Your task to perform on an android device: set the timer Image 0: 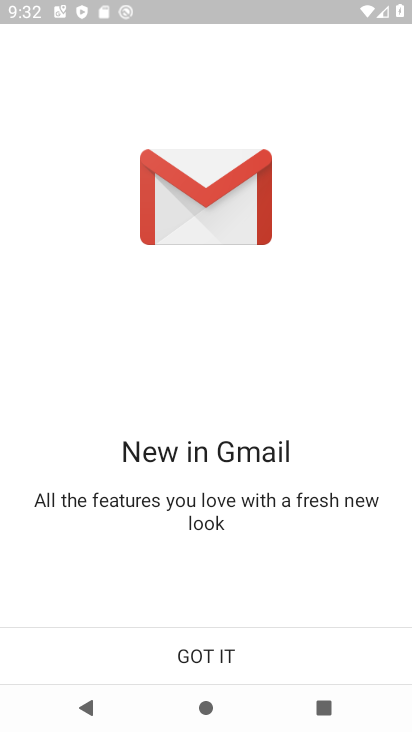
Step 0: press home button
Your task to perform on an android device: set the timer Image 1: 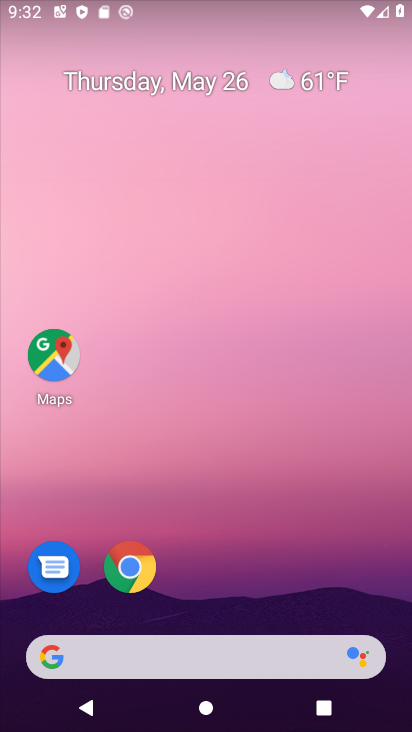
Step 1: drag from (381, 575) to (346, 111)
Your task to perform on an android device: set the timer Image 2: 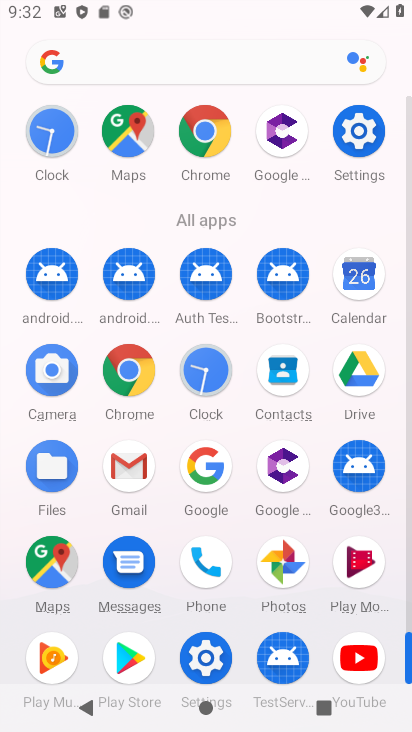
Step 2: click (210, 379)
Your task to perform on an android device: set the timer Image 3: 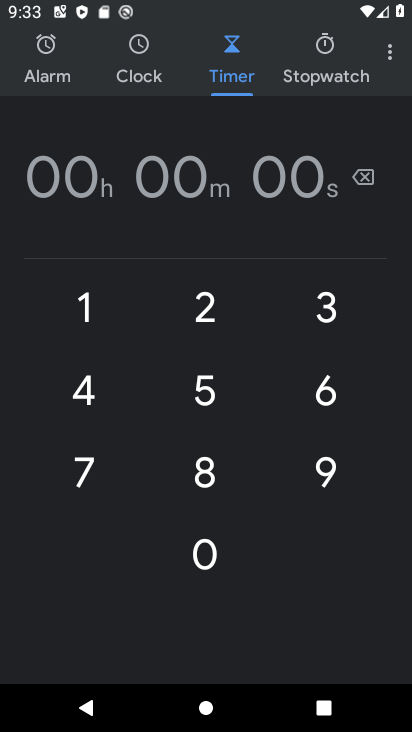
Step 3: click (223, 329)
Your task to perform on an android device: set the timer Image 4: 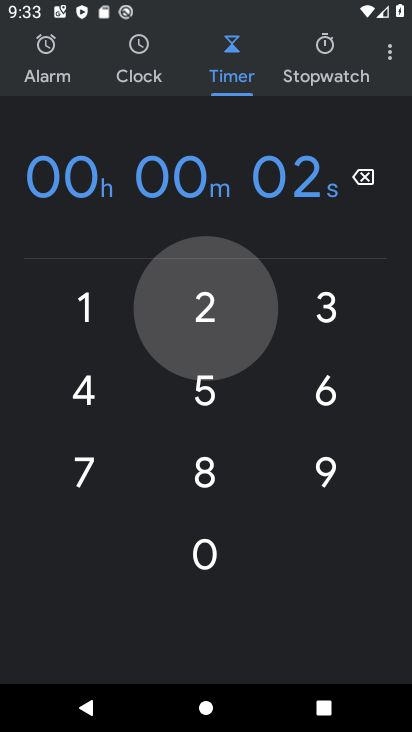
Step 4: click (220, 372)
Your task to perform on an android device: set the timer Image 5: 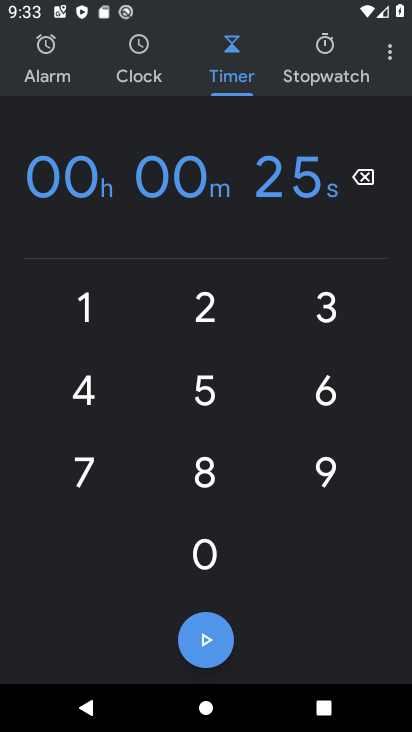
Step 5: click (362, 377)
Your task to perform on an android device: set the timer Image 6: 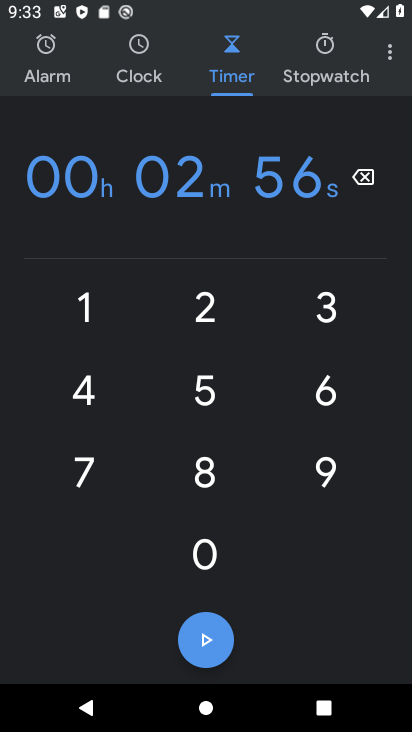
Step 6: task complete